Your task to perform on an android device: What is the recent news? Image 0: 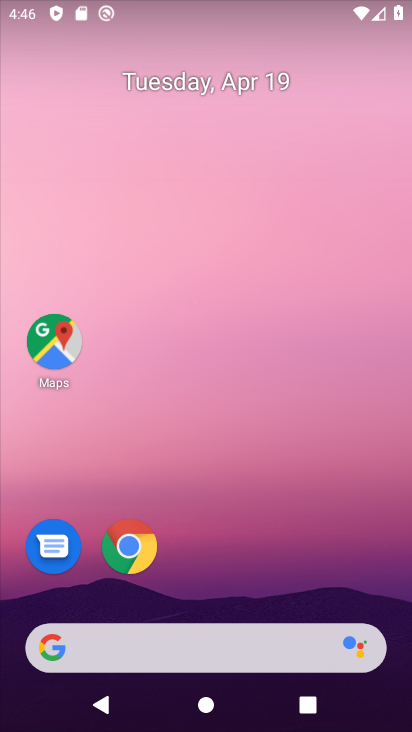
Step 0: drag from (382, 401) to (403, 163)
Your task to perform on an android device: What is the recent news? Image 1: 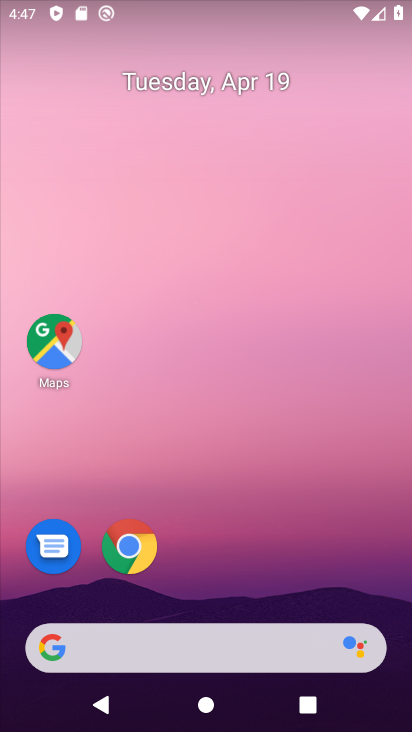
Step 1: drag from (329, 471) to (411, 82)
Your task to perform on an android device: What is the recent news? Image 2: 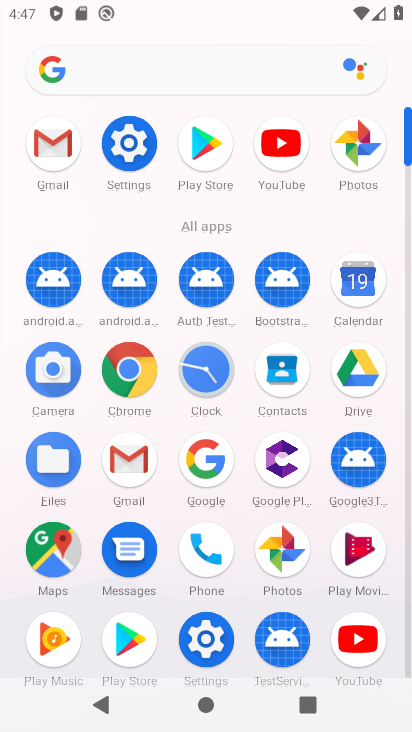
Step 2: click (113, 367)
Your task to perform on an android device: What is the recent news? Image 3: 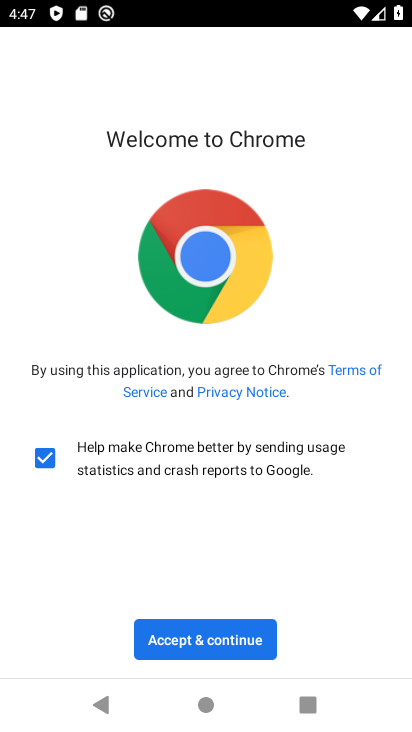
Step 3: click (238, 653)
Your task to perform on an android device: What is the recent news? Image 4: 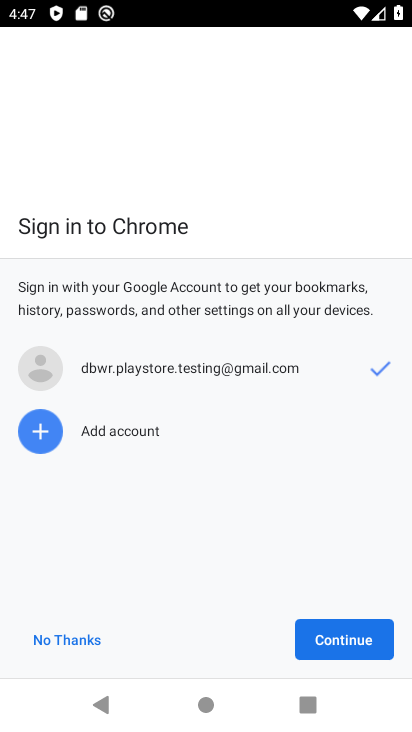
Step 4: click (48, 642)
Your task to perform on an android device: What is the recent news? Image 5: 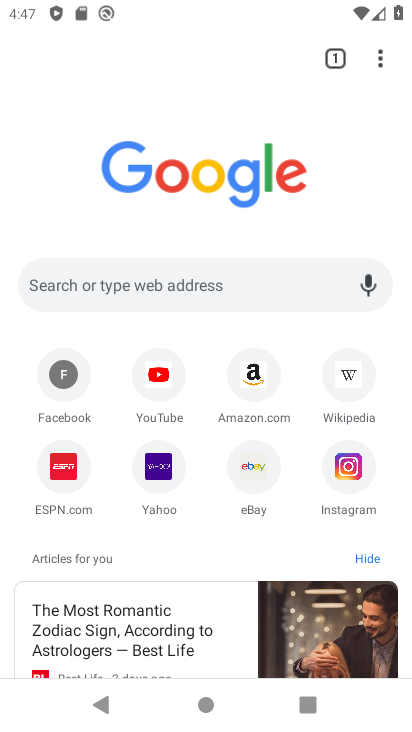
Step 5: click (154, 290)
Your task to perform on an android device: What is the recent news? Image 6: 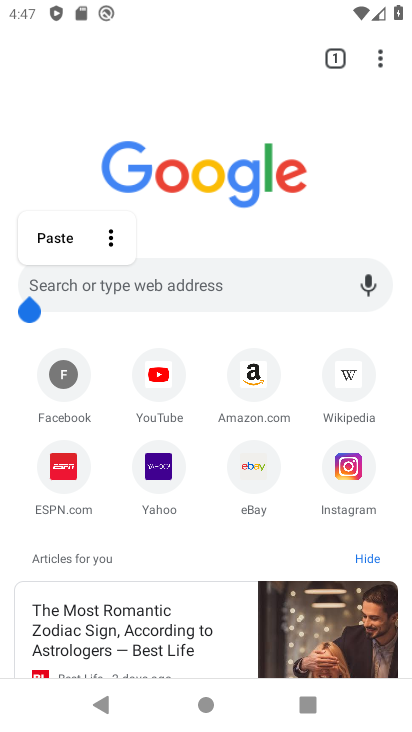
Step 6: click (154, 290)
Your task to perform on an android device: What is the recent news? Image 7: 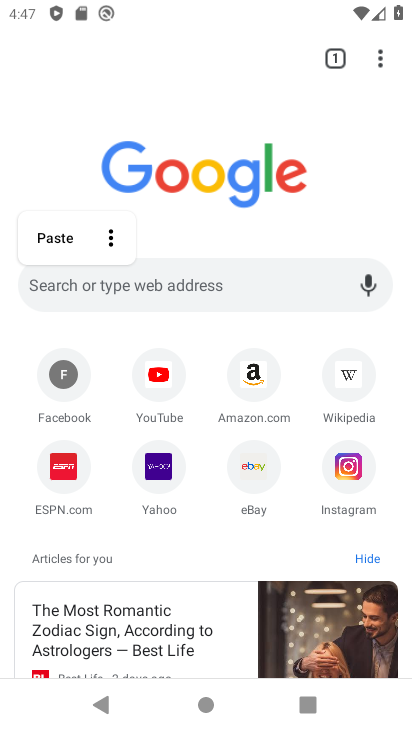
Step 7: drag from (387, 530) to (394, 173)
Your task to perform on an android device: What is the recent news? Image 8: 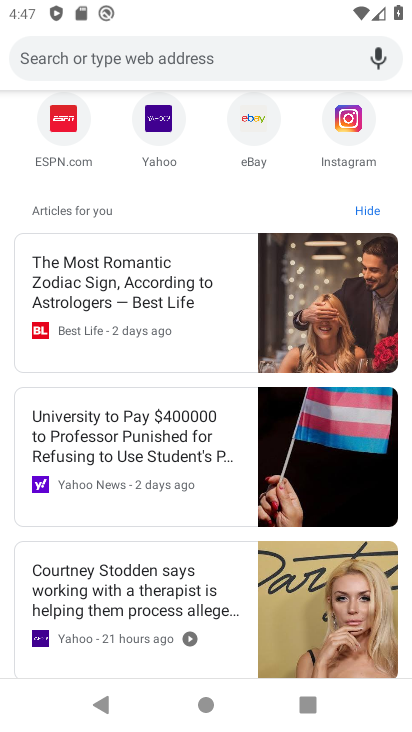
Step 8: click (401, 589)
Your task to perform on an android device: What is the recent news? Image 9: 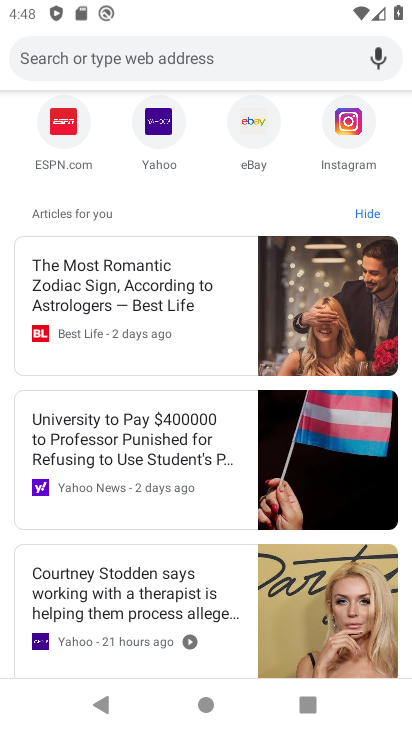
Step 9: task complete